Your task to perform on an android device: check storage Image 0: 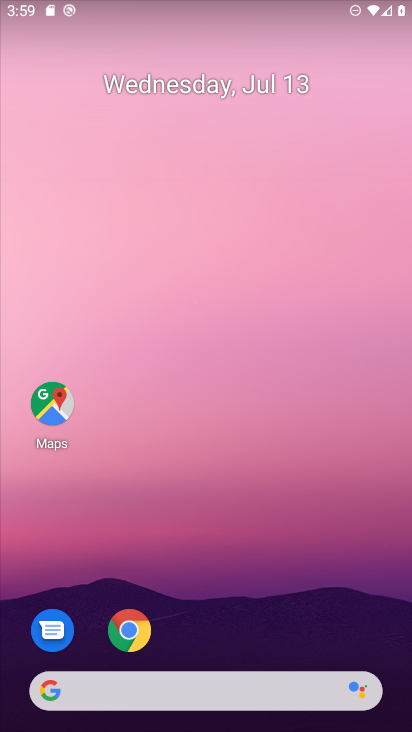
Step 0: drag from (201, 519) to (191, 246)
Your task to perform on an android device: check storage Image 1: 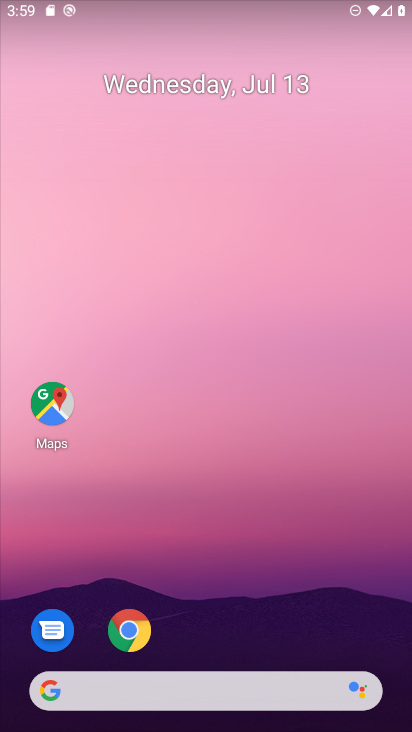
Step 1: drag from (150, 341) to (76, 15)
Your task to perform on an android device: check storage Image 2: 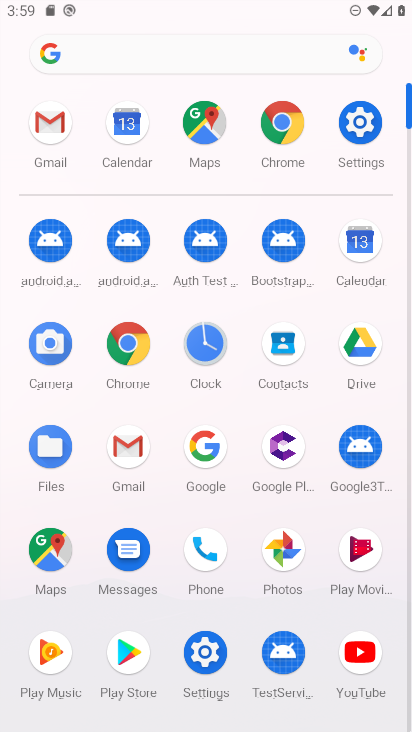
Step 2: click (362, 134)
Your task to perform on an android device: check storage Image 3: 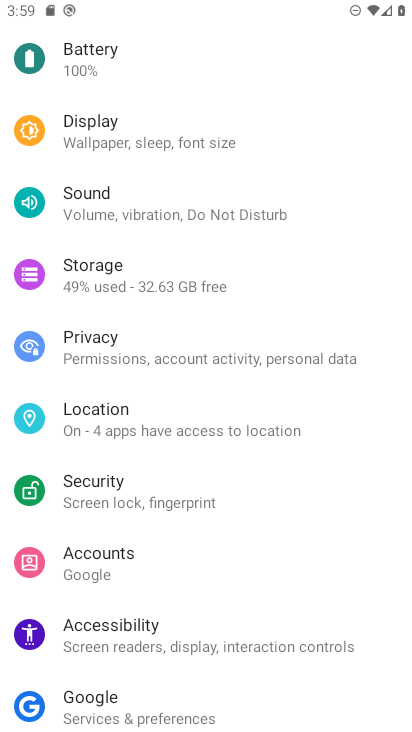
Step 3: click (169, 299)
Your task to perform on an android device: check storage Image 4: 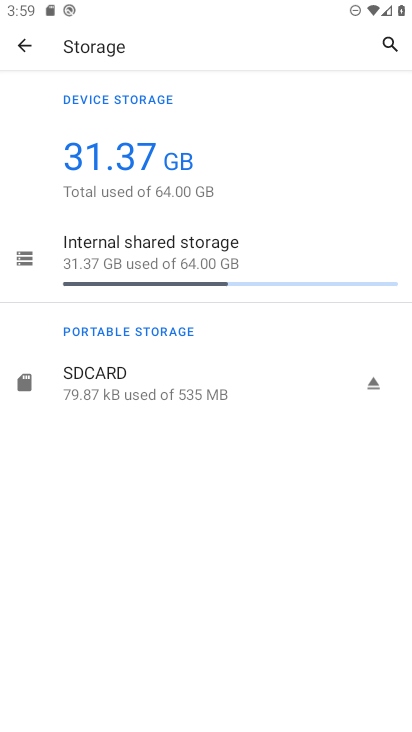
Step 4: task complete